Your task to perform on an android device: toggle location history Image 0: 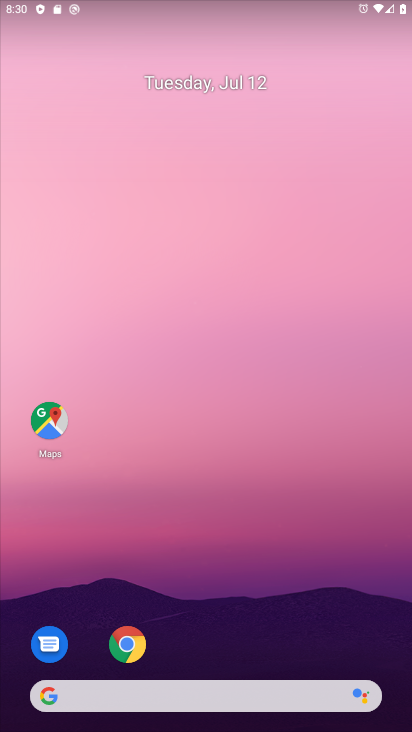
Step 0: drag from (20, 707) to (411, 53)
Your task to perform on an android device: toggle location history Image 1: 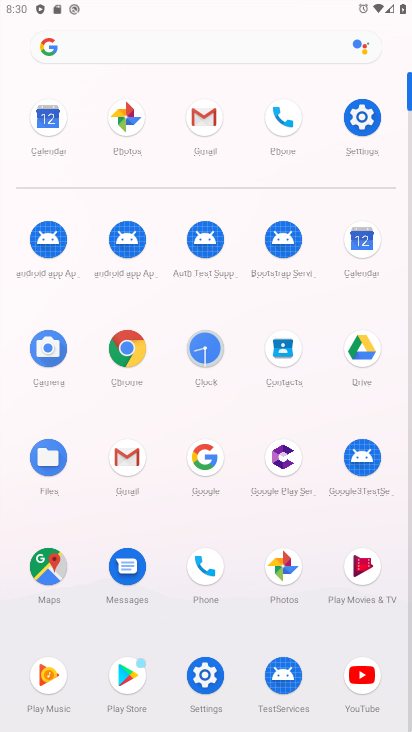
Step 1: click (58, 565)
Your task to perform on an android device: toggle location history Image 2: 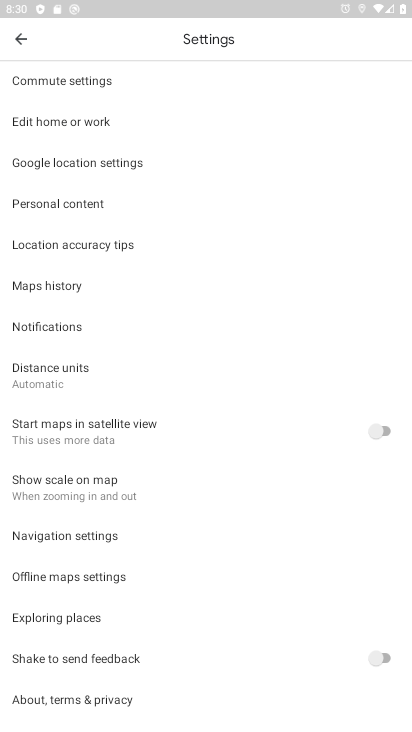
Step 2: click (98, 159)
Your task to perform on an android device: toggle location history Image 3: 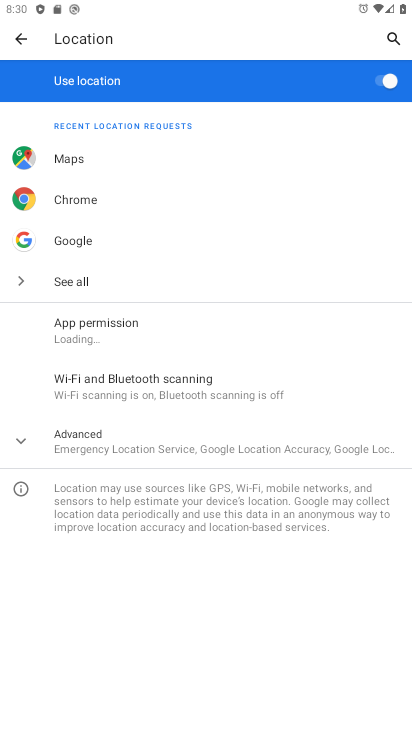
Step 3: click (73, 431)
Your task to perform on an android device: toggle location history Image 4: 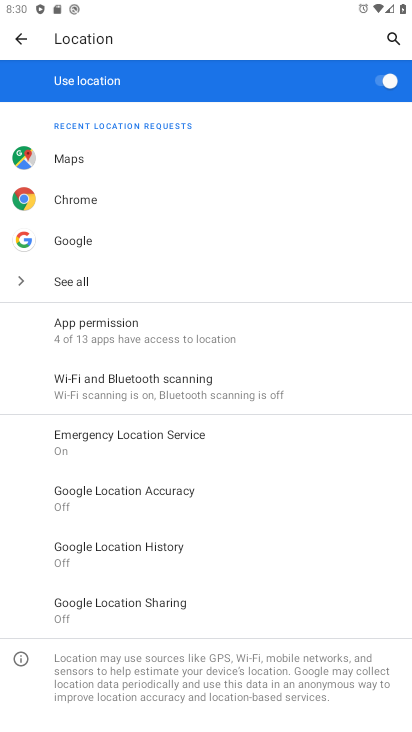
Step 4: click (93, 495)
Your task to perform on an android device: toggle location history Image 5: 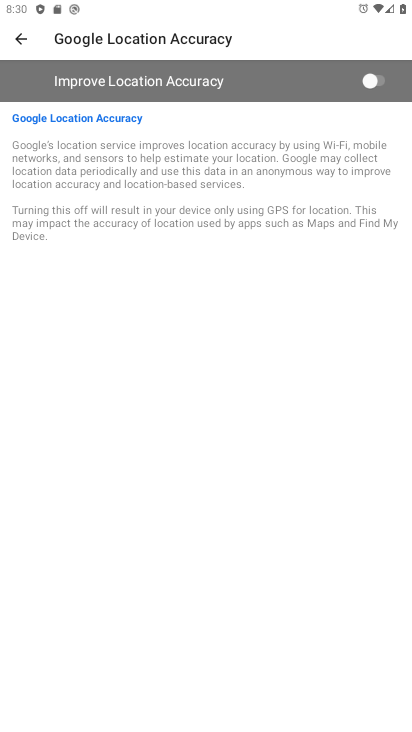
Step 5: click (370, 75)
Your task to perform on an android device: toggle location history Image 6: 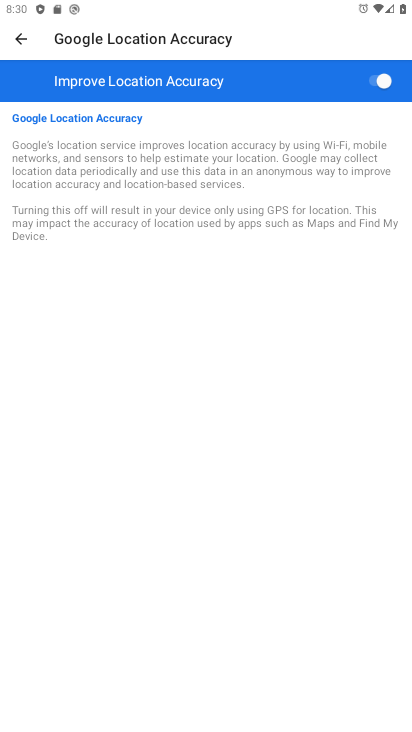
Step 6: task complete